Your task to perform on an android device: What's on my calendar today? Image 0: 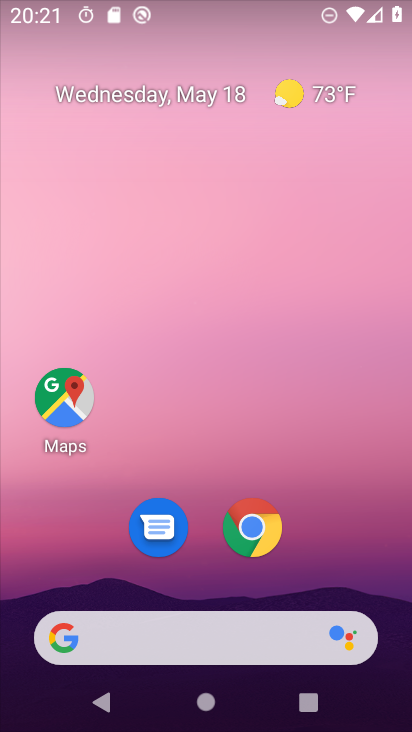
Step 0: click (233, 267)
Your task to perform on an android device: What's on my calendar today? Image 1: 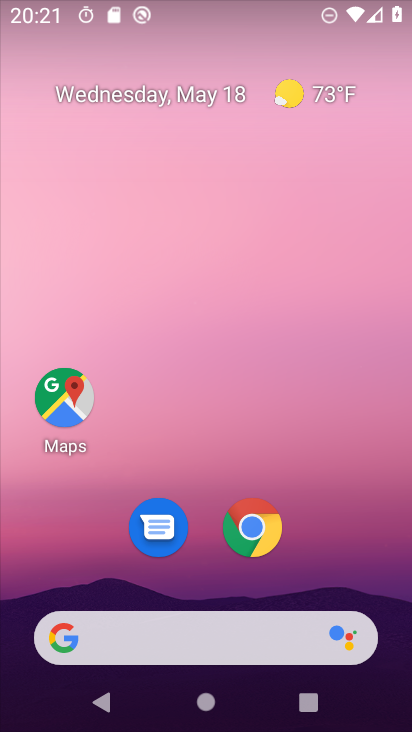
Step 1: drag from (394, 688) to (371, 214)
Your task to perform on an android device: What's on my calendar today? Image 2: 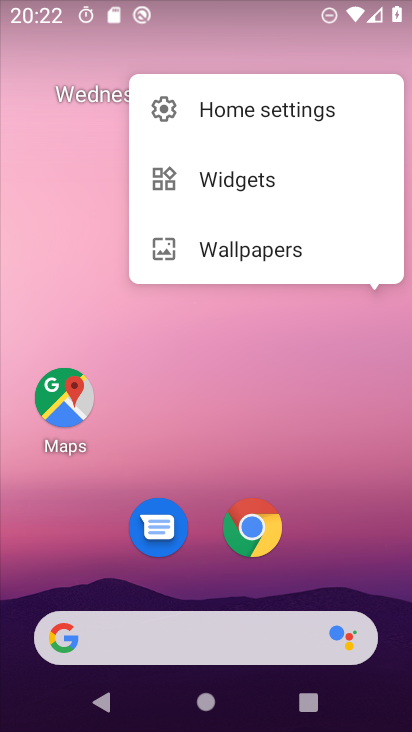
Step 2: drag from (387, 673) to (337, 71)
Your task to perform on an android device: What's on my calendar today? Image 3: 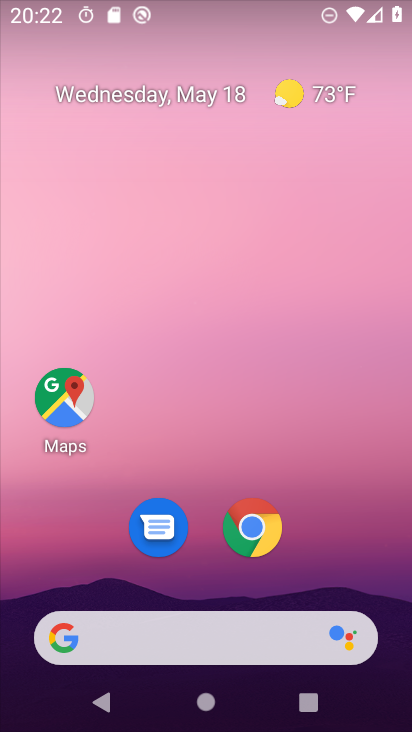
Step 3: drag from (315, 150) to (307, 107)
Your task to perform on an android device: What's on my calendar today? Image 4: 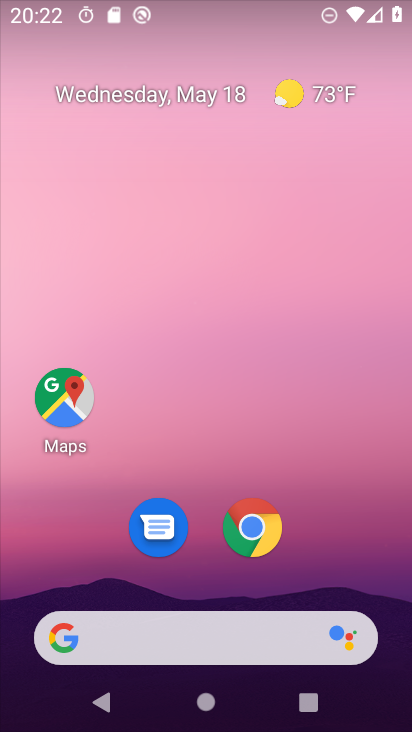
Step 4: drag from (377, 439) to (371, 270)
Your task to perform on an android device: What's on my calendar today? Image 5: 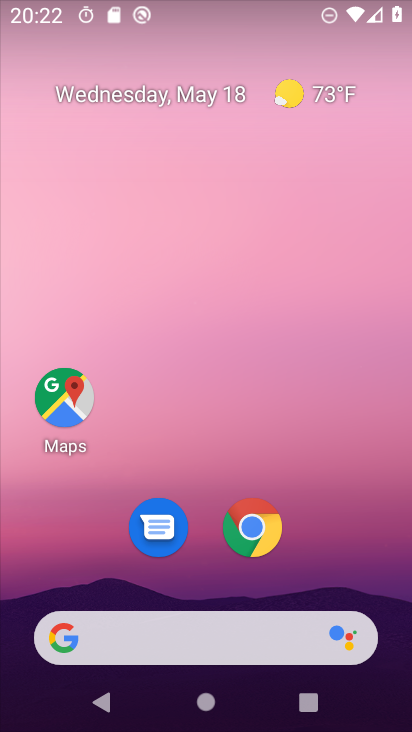
Step 5: drag from (393, 681) to (324, 95)
Your task to perform on an android device: What's on my calendar today? Image 6: 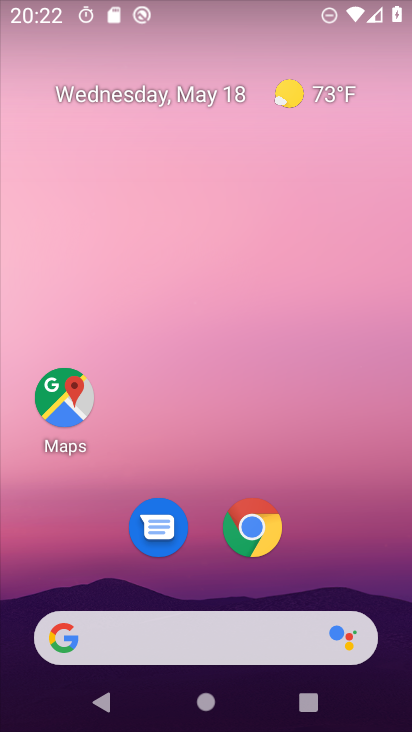
Step 6: drag from (400, 685) to (359, 106)
Your task to perform on an android device: What's on my calendar today? Image 7: 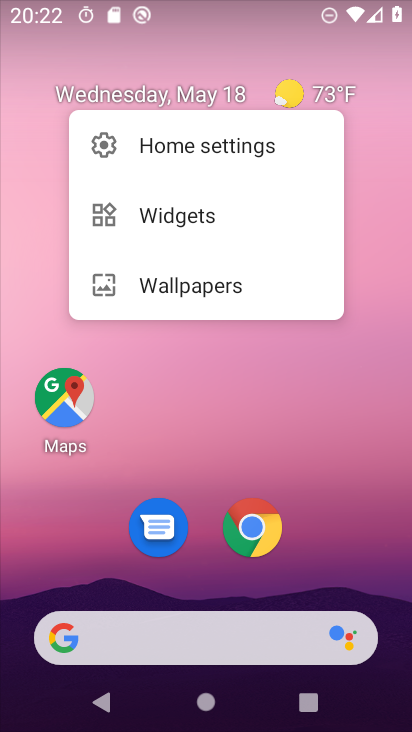
Step 7: drag from (389, 594) to (288, 12)
Your task to perform on an android device: What's on my calendar today? Image 8: 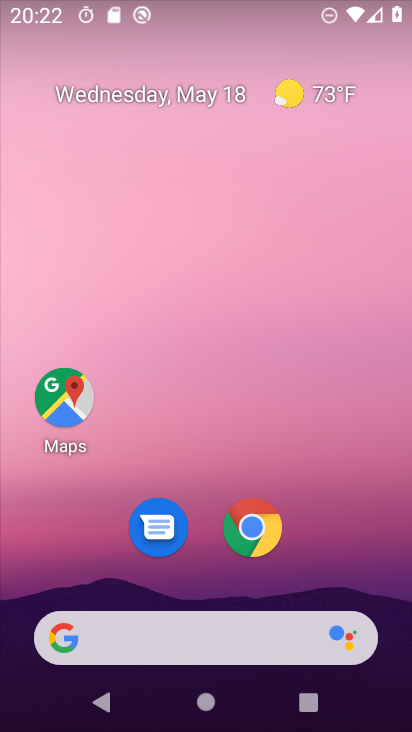
Step 8: drag from (369, 450) to (311, 33)
Your task to perform on an android device: What's on my calendar today? Image 9: 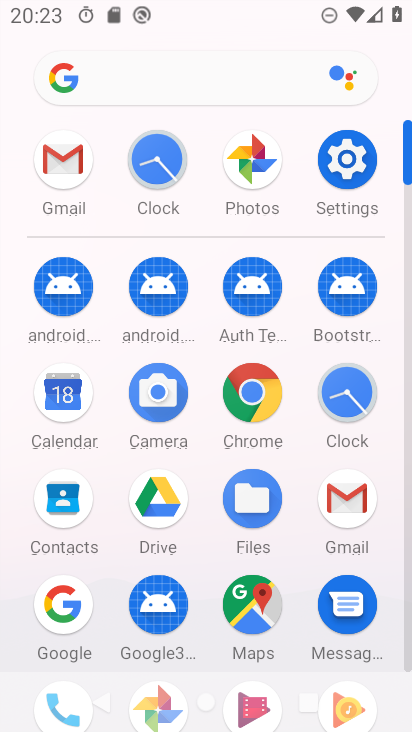
Step 9: click (65, 395)
Your task to perform on an android device: What's on my calendar today? Image 10: 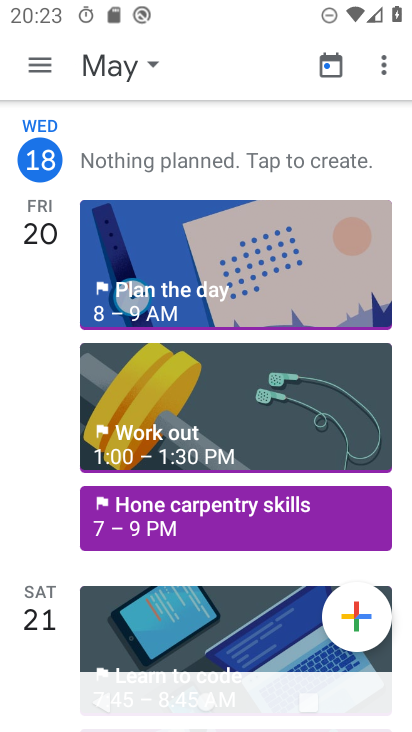
Step 10: click (143, 66)
Your task to perform on an android device: What's on my calendar today? Image 11: 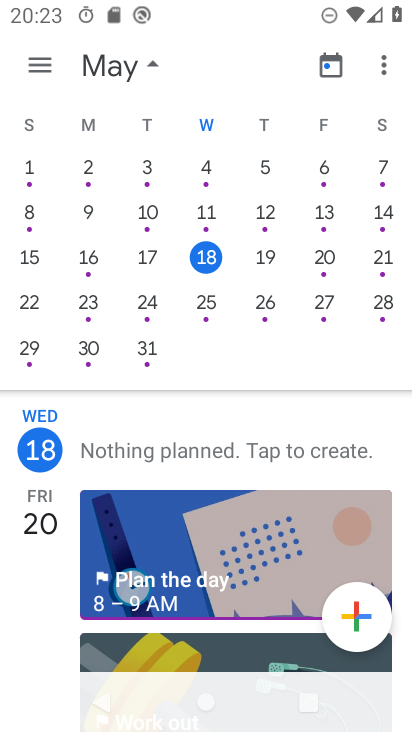
Step 11: click (200, 245)
Your task to perform on an android device: What's on my calendar today? Image 12: 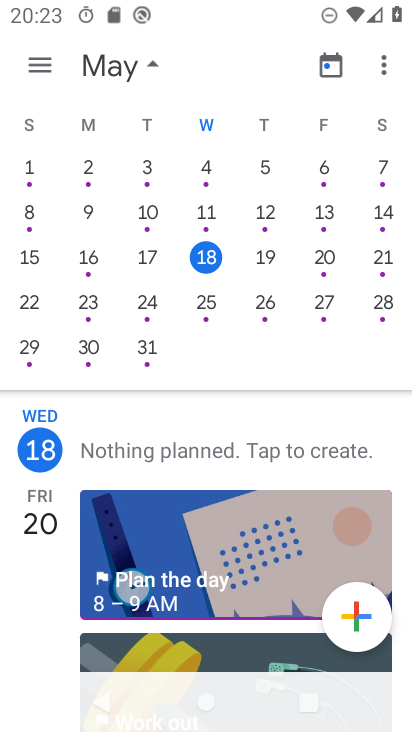
Step 12: task complete